Your task to perform on an android device: Open Yahoo.com Image 0: 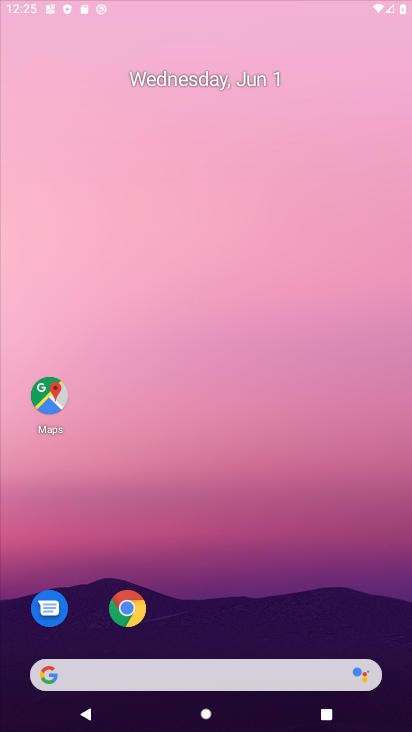
Step 0: click (270, 203)
Your task to perform on an android device: Open Yahoo.com Image 1: 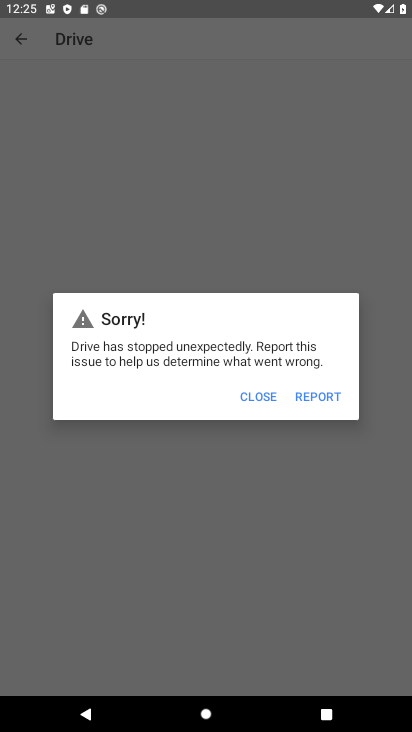
Step 1: drag from (211, 524) to (231, 222)
Your task to perform on an android device: Open Yahoo.com Image 2: 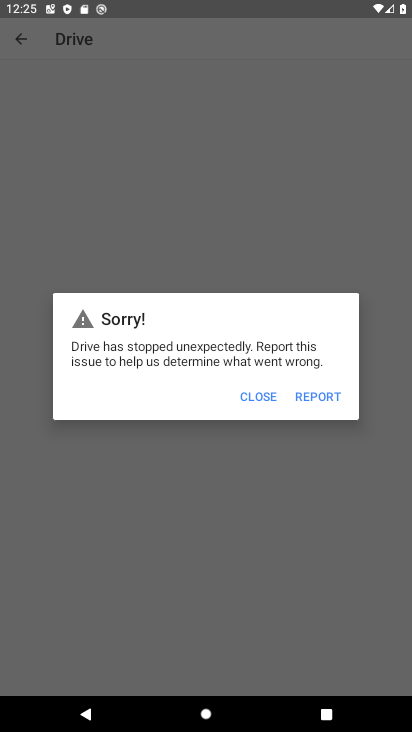
Step 2: press home button
Your task to perform on an android device: Open Yahoo.com Image 3: 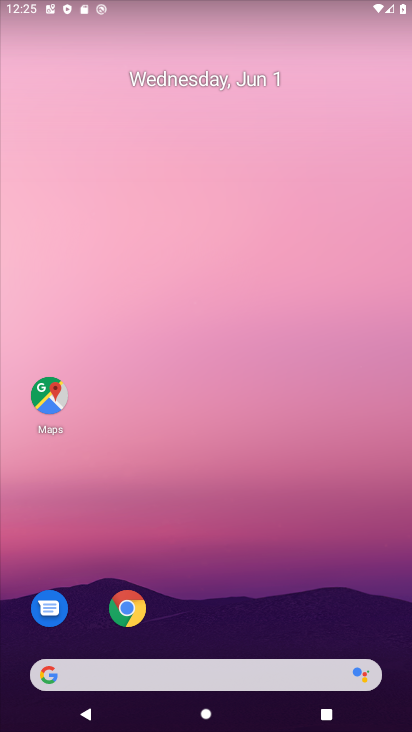
Step 3: drag from (312, 604) to (316, 99)
Your task to perform on an android device: Open Yahoo.com Image 4: 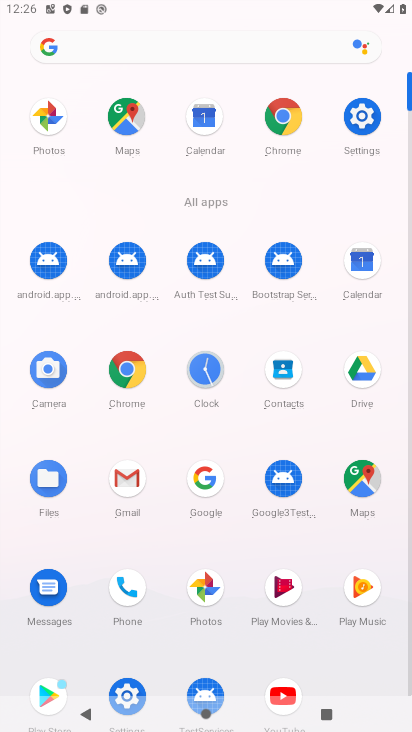
Step 4: click (212, 484)
Your task to perform on an android device: Open Yahoo.com Image 5: 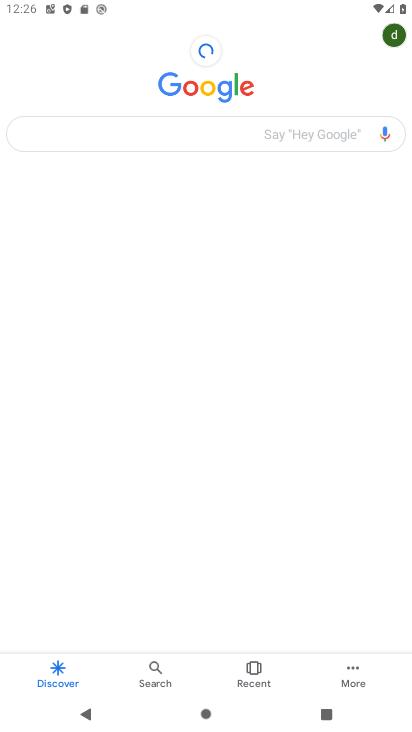
Step 5: click (184, 136)
Your task to perform on an android device: Open Yahoo.com Image 6: 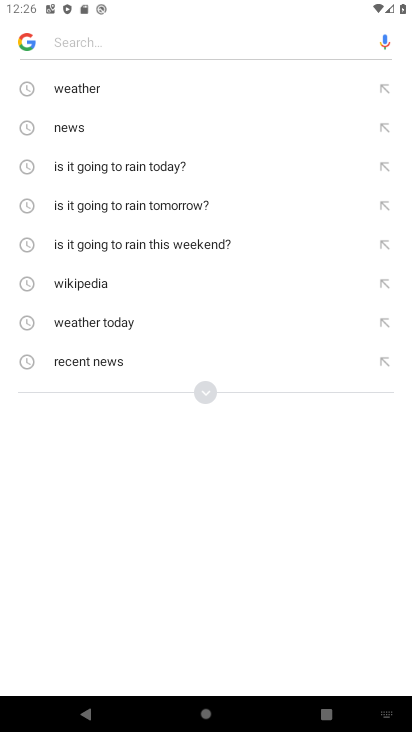
Step 6: type "Yahoo.com"
Your task to perform on an android device: Open Yahoo.com Image 7: 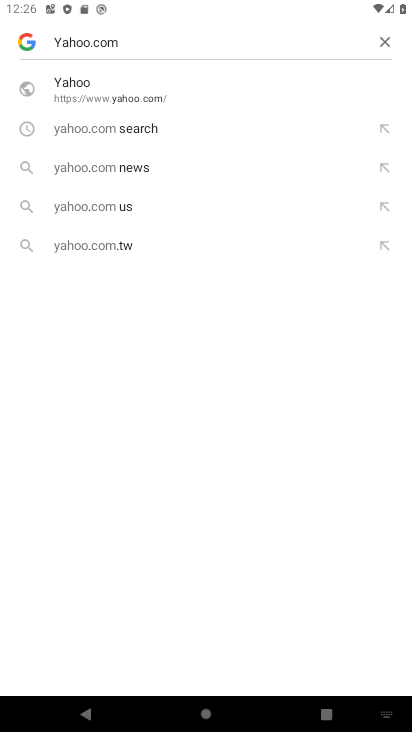
Step 7: click (128, 94)
Your task to perform on an android device: Open Yahoo.com Image 8: 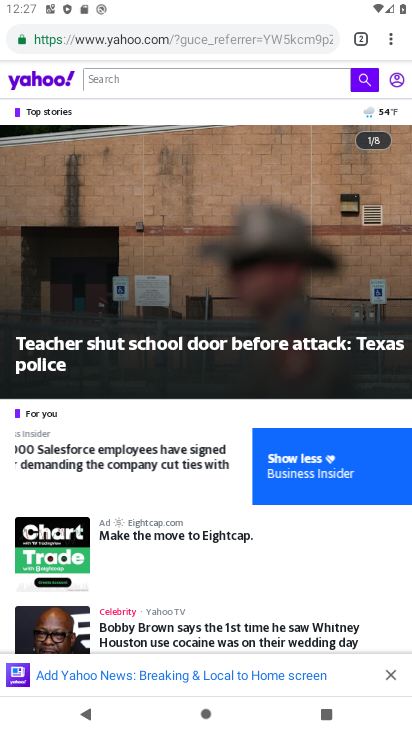
Step 8: task complete